Your task to perform on an android device: turn off notifications in google photos Image 0: 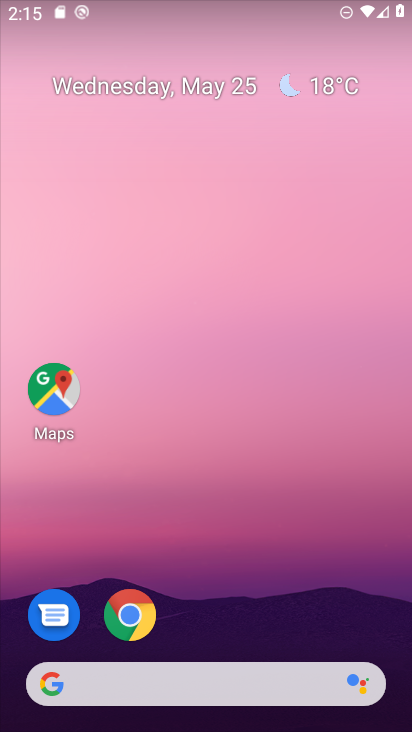
Step 0: drag from (227, 578) to (239, 0)
Your task to perform on an android device: turn off notifications in google photos Image 1: 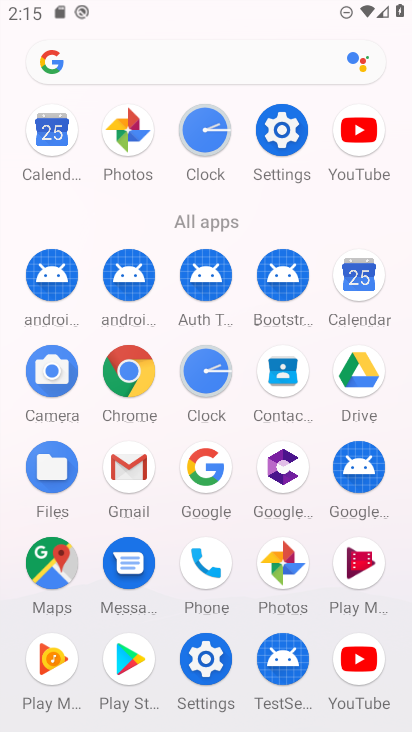
Step 1: click (288, 138)
Your task to perform on an android device: turn off notifications in google photos Image 2: 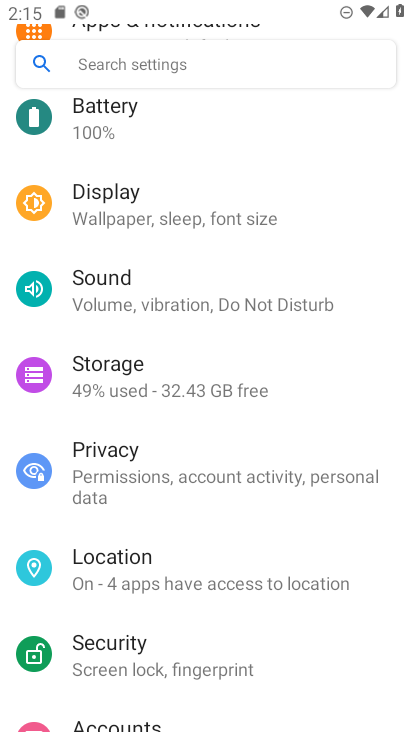
Step 2: drag from (238, 279) to (241, 552)
Your task to perform on an android device: turn off notifications in google photos Image 3: 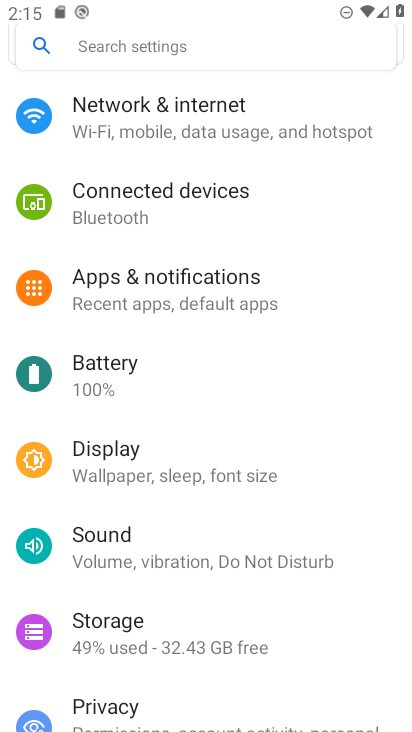
Step 3: click (226, 294)
Your task to perform on an android device: turn off notifications in google photos Image 4: 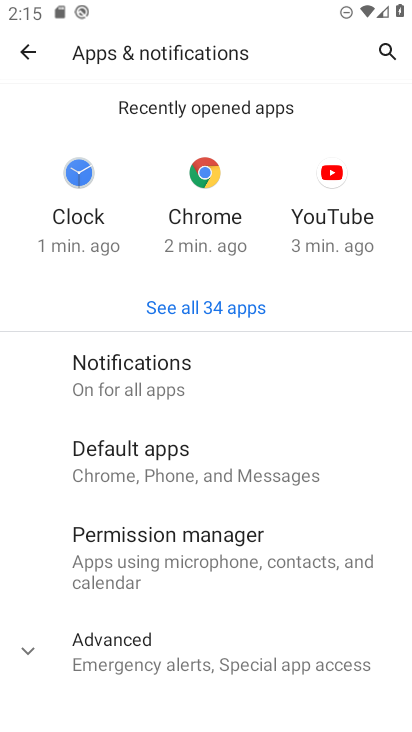
Step 4: click (221, 296)
Your task to perform on an android device: turn off notifications in google photos Image 5: 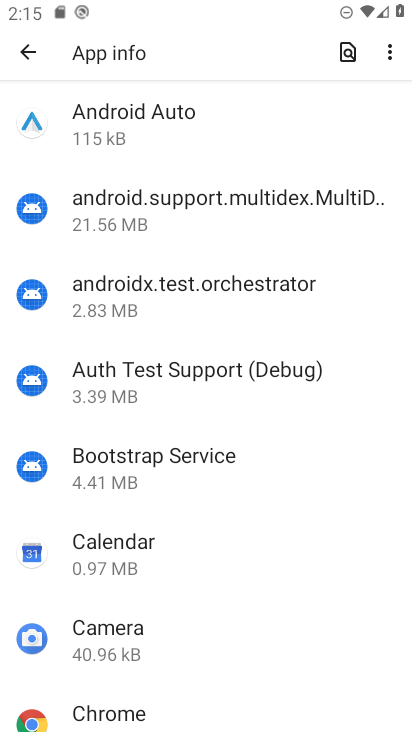
Step 5: drag from (205, 574) to (249, 38)
Your task to perform on an android device: turn off notifications in google photos Image 6: 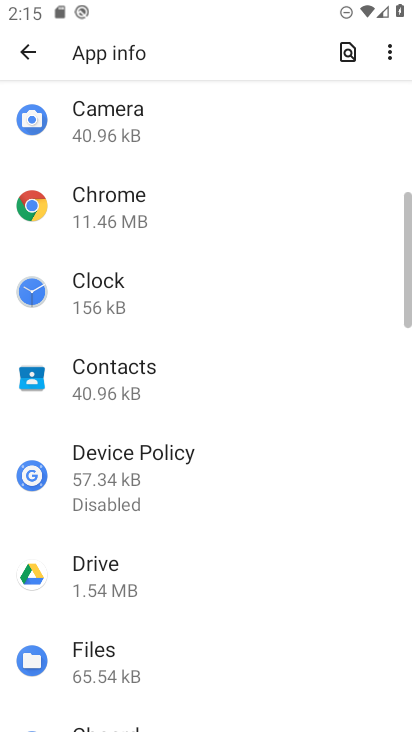
Step 6: drag from (196, 691) to (287, 1)
Your task to perform on an android device: turn off notifications in google photos Image 7: 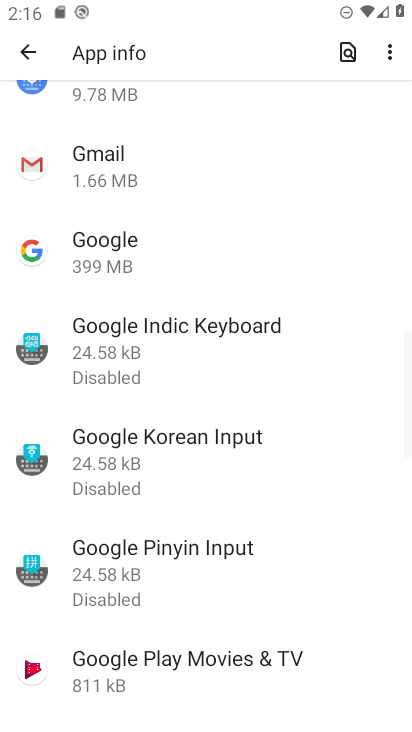
Step 7: drag from (230, 699) to (230, 24)
Your task to perform on an android device: turn off notifications in google photos Image 8: 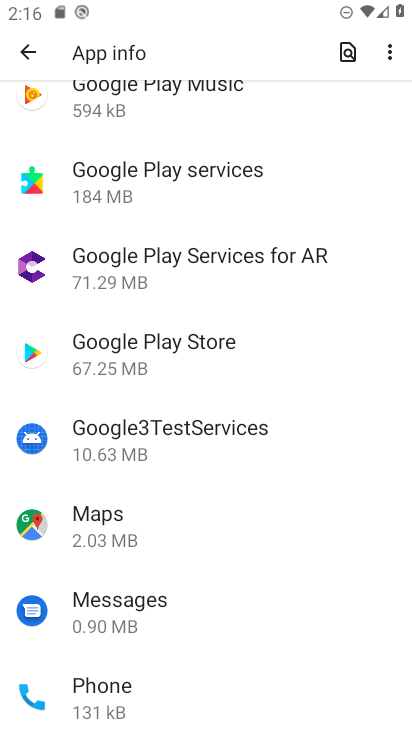
Step 8: drag from (201, 686) to (227, 233)
Your task to perform on an android device: turn off notifications in google photos Image 9: 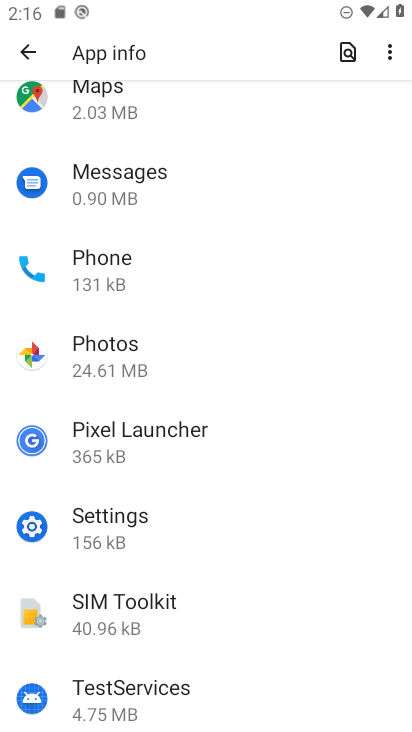
Step 9: click (175, 349)
Your task to perform on an android device: turn off notifications in google photos Image 10: 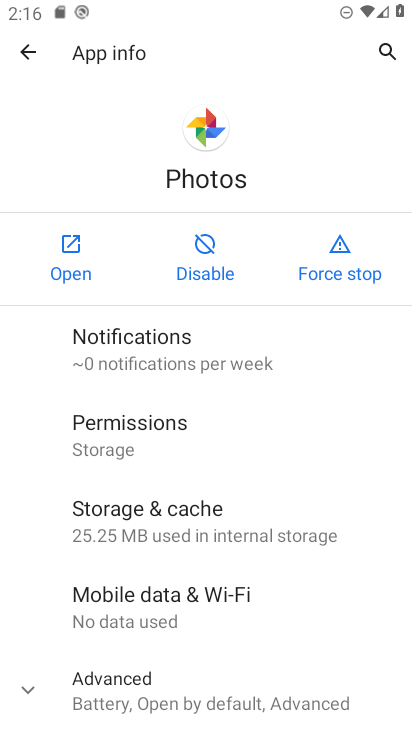
Step 10: click (175, 349)
Your task to perform on an android device: turn off notifications in google photos Image 11: 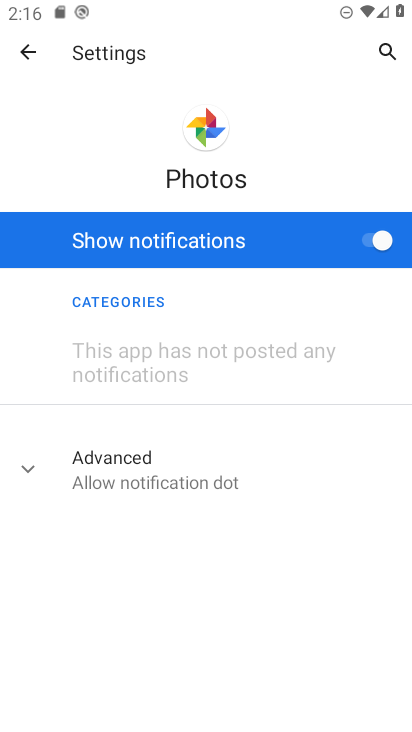
Step 11: click (373, 241)
Your task to perform on an android device: turn off notifications in google photos Image 12: 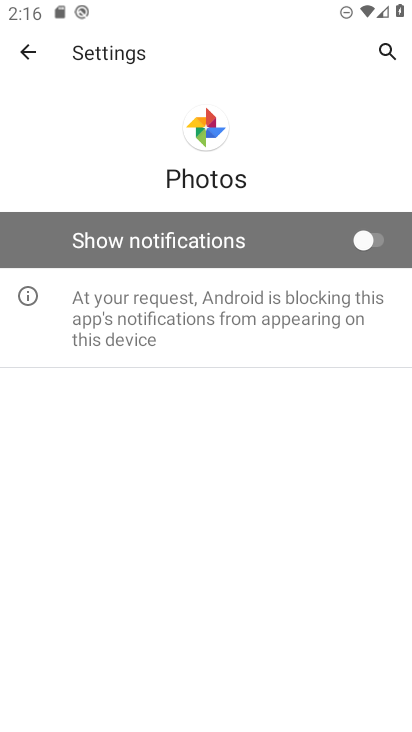
Step 12: task complete